Your task to perform on an android device: open chrome privacy settings Image 0: 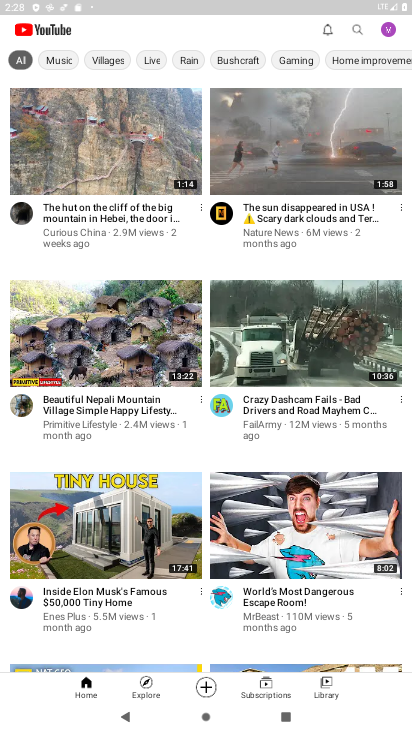
Step 0: press home button
Your task to perform on an android device: open chrome privacy settings Image 1: 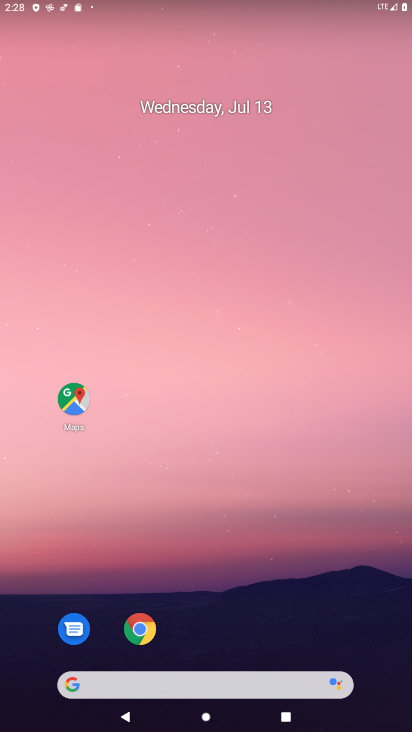
Step 1: drag from (258, 649) to (243, 194)
Your task to perform on an android device: open chrome privacy settings Image 2: 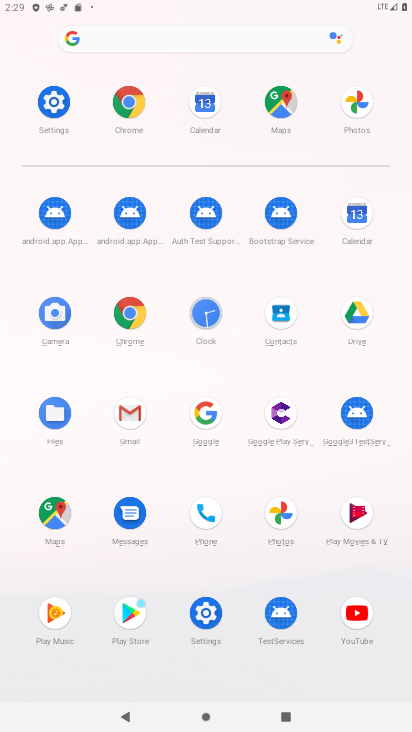
Step 2: click (44, 116)
Your task to perform on an android device: open chrome privacy settings Image 3: 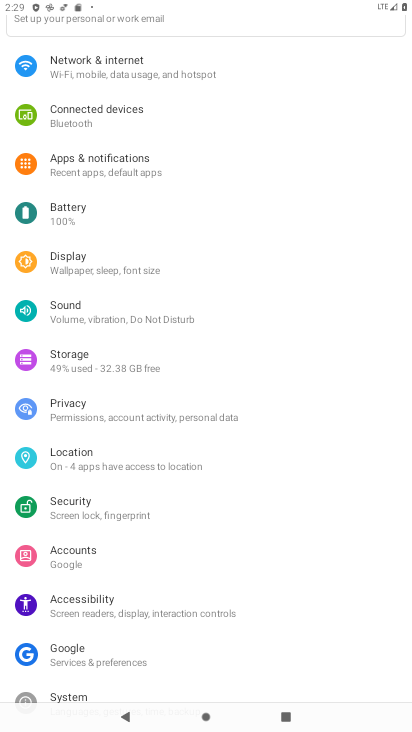
Step 3: click (57, 53)
Your task to perform on an android device: open chrome privacy settings Image 4: 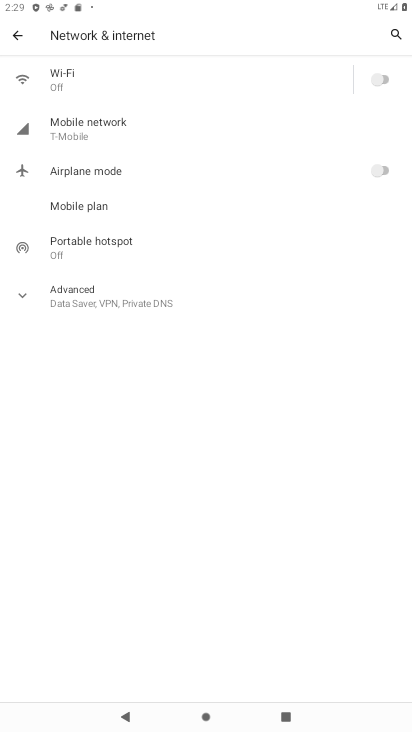
Step 4: press home button
Your task to perform on an android device: open chrome privacy settings Image 5: 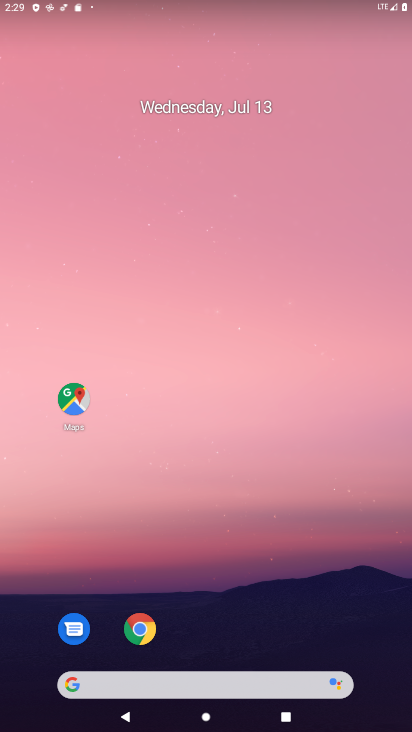
Step 5: drag from (281, 619) to (290, 194)
Your task to perform on an android device: open chrome privacy settings Image 6: 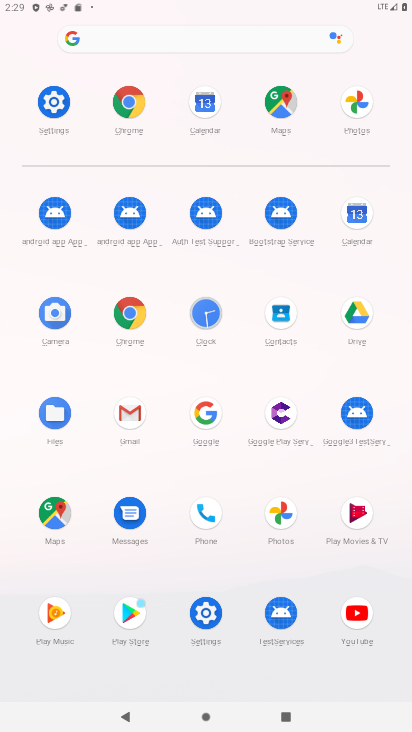
Step 6: click (52, 109)
Your task to perform on an android device: open chrome privacy settings Image 7: 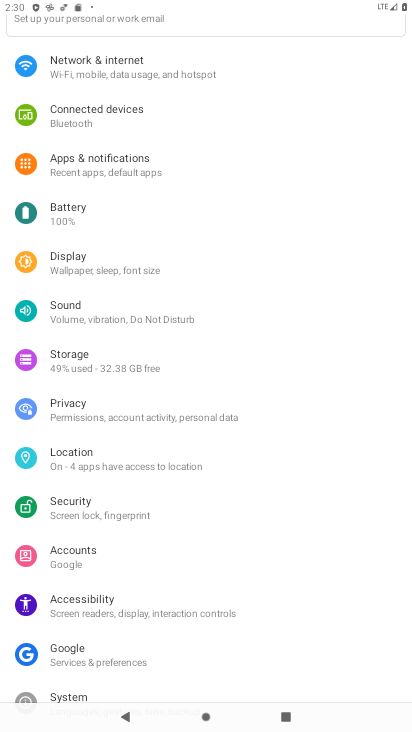
Step 7: click (99, 433)
Your task to perform on an android device: open chrome privacy settings Image 8: 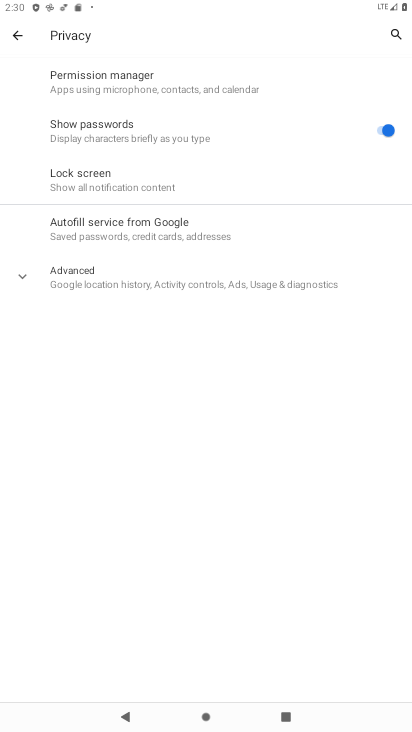
Step 8: task complete